Your task to perform on an android device: turn off airplane mode Image 0: 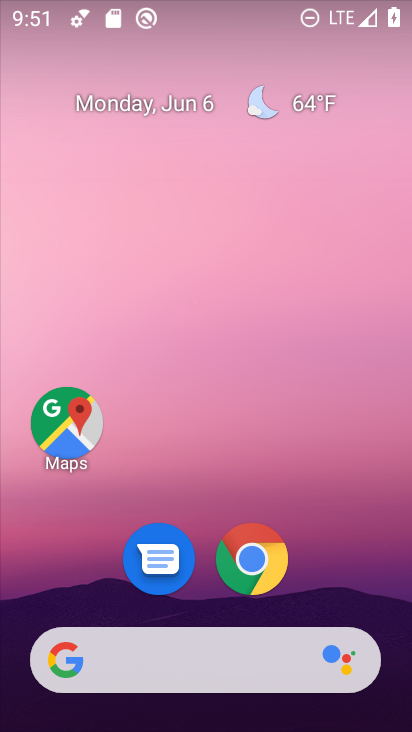
Step 0: drag from (231, 727) to (226, 129)
Your task to perform on an android device: turn off airplane mode Image 1: 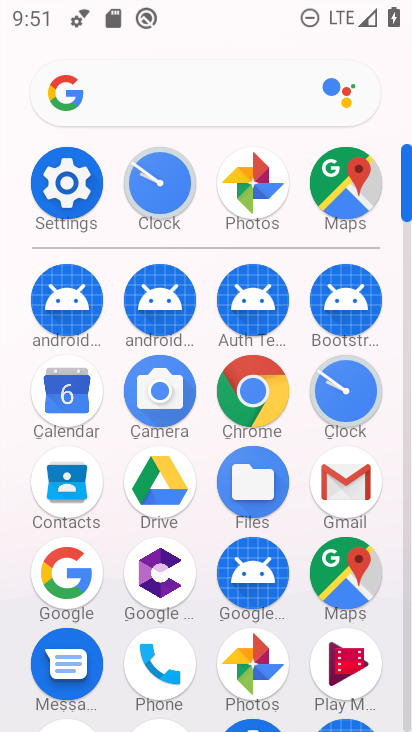
Step 1: click (75, 186)
Your task to perform on an android device: turn off airplane mode Image 2: 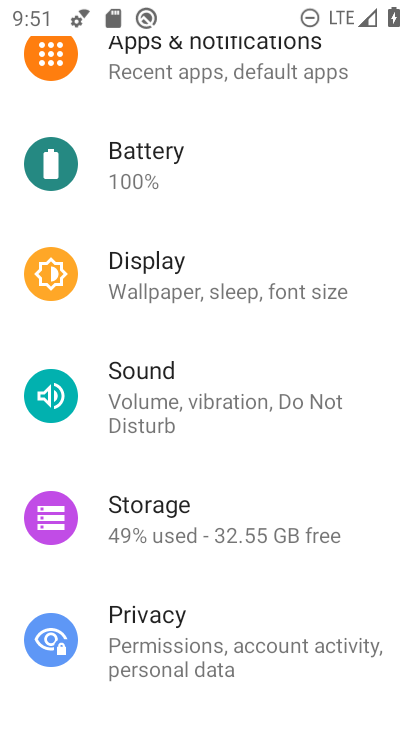
Step 2: drag from (221, 131) to (219, 600)
Your task to perform on an android device: turn off airplane mode Image 3: 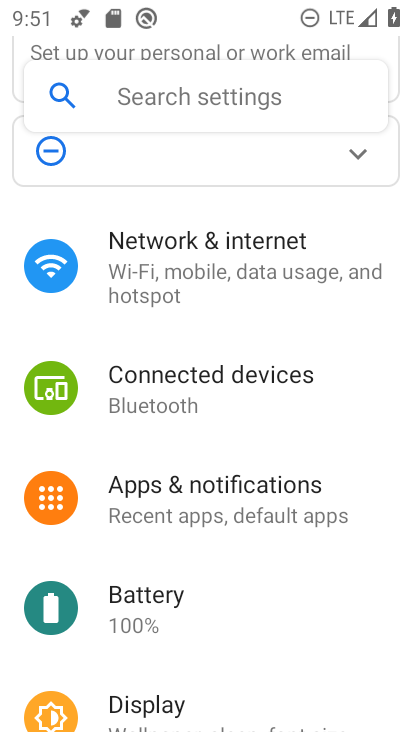
Step 3: click (181, 270)
Your task to perform on an android device: turn off airplane mode Image 4: 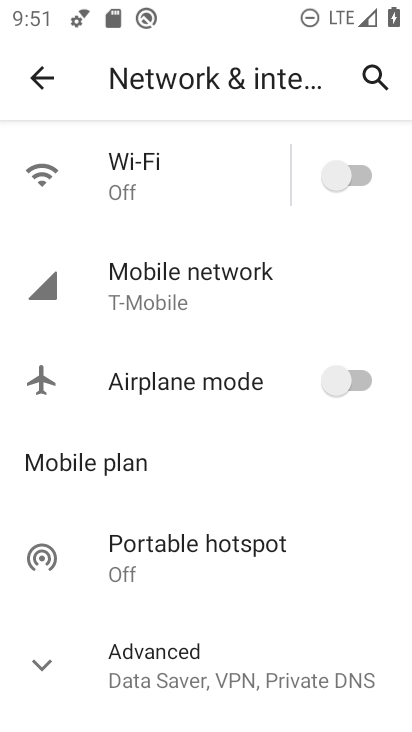
Step 4: task complete